Your task to perform on an android device: turn off wifi Image 0: 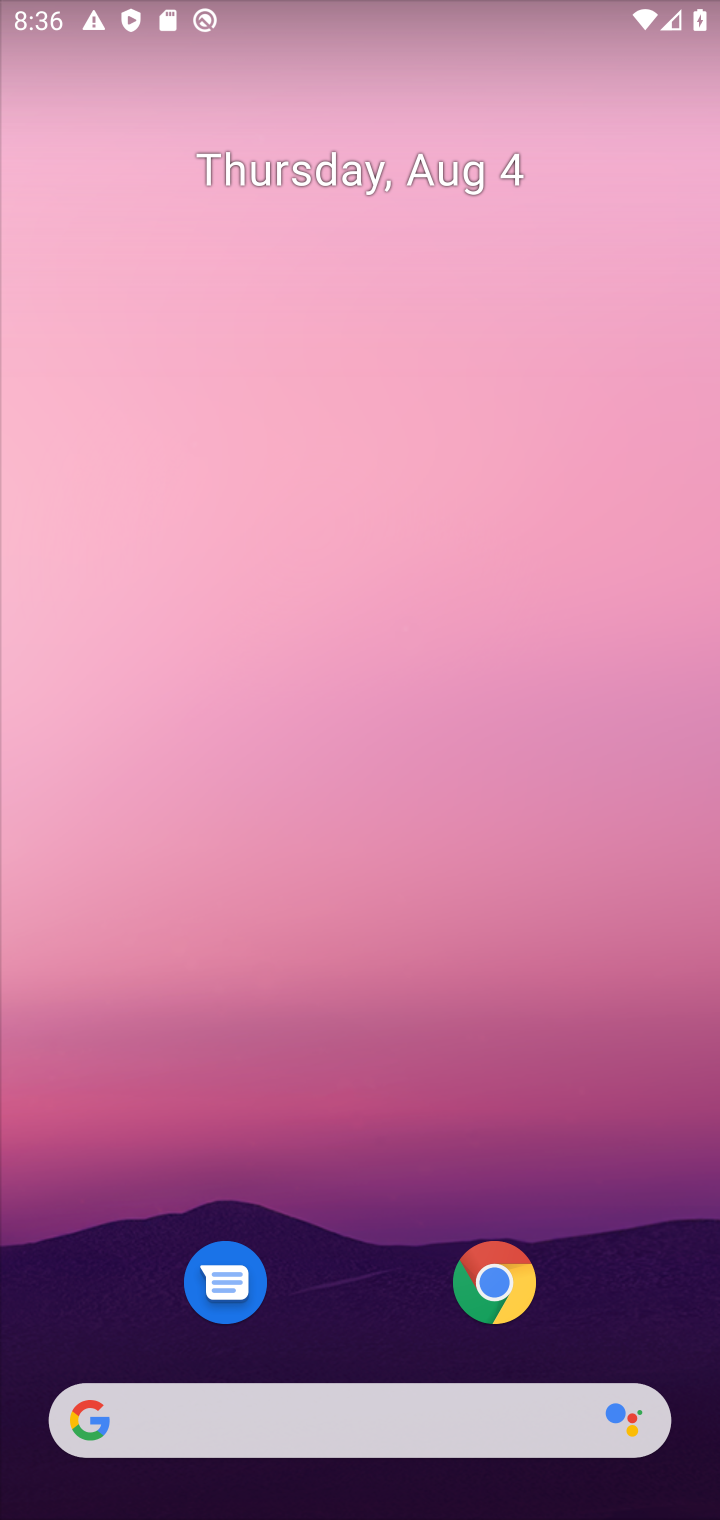
Step 0: drag from (646, 20) to (717, 1323)
Your task to perform on an android device: turn off wifi Image 1: 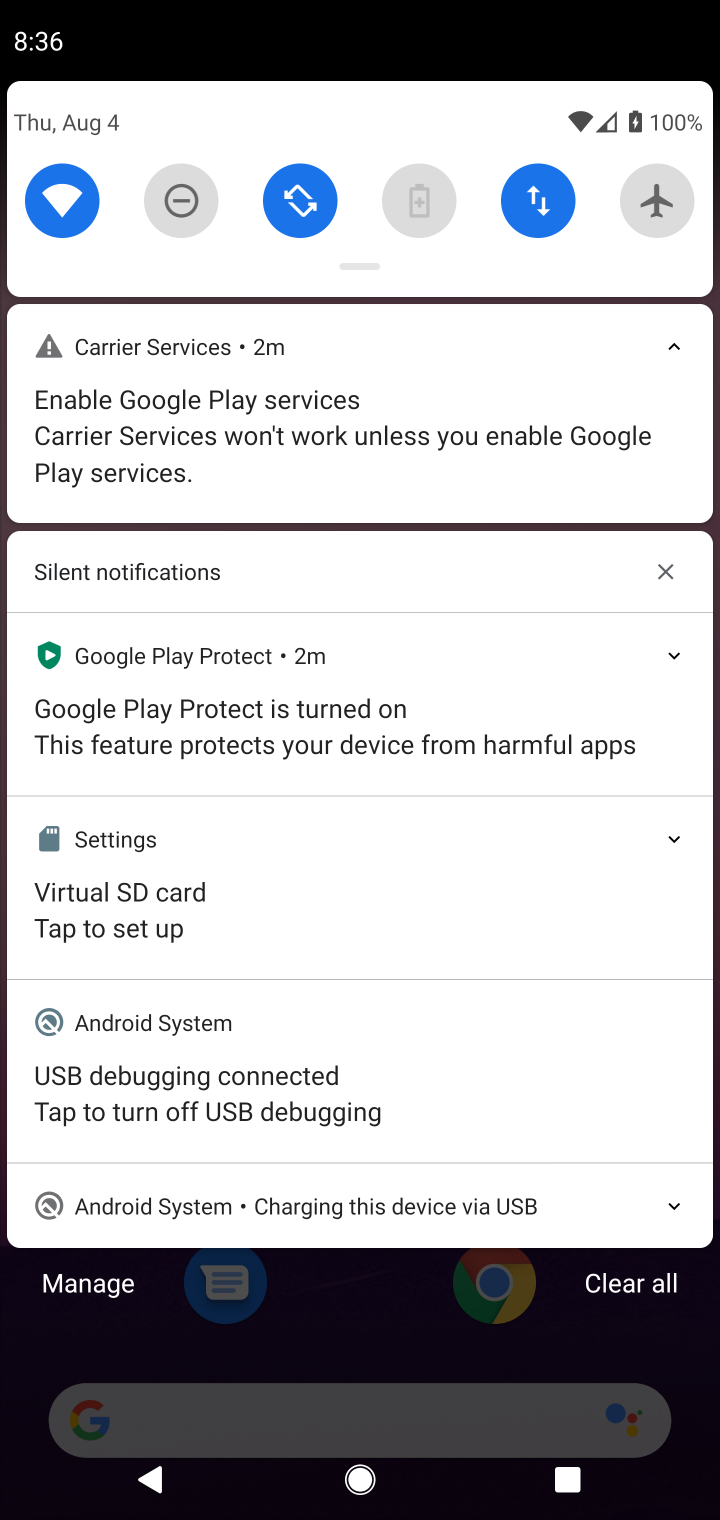
Step 1: click (49, 185)
Your task to perform on an android device: turn off wifi Image 2: 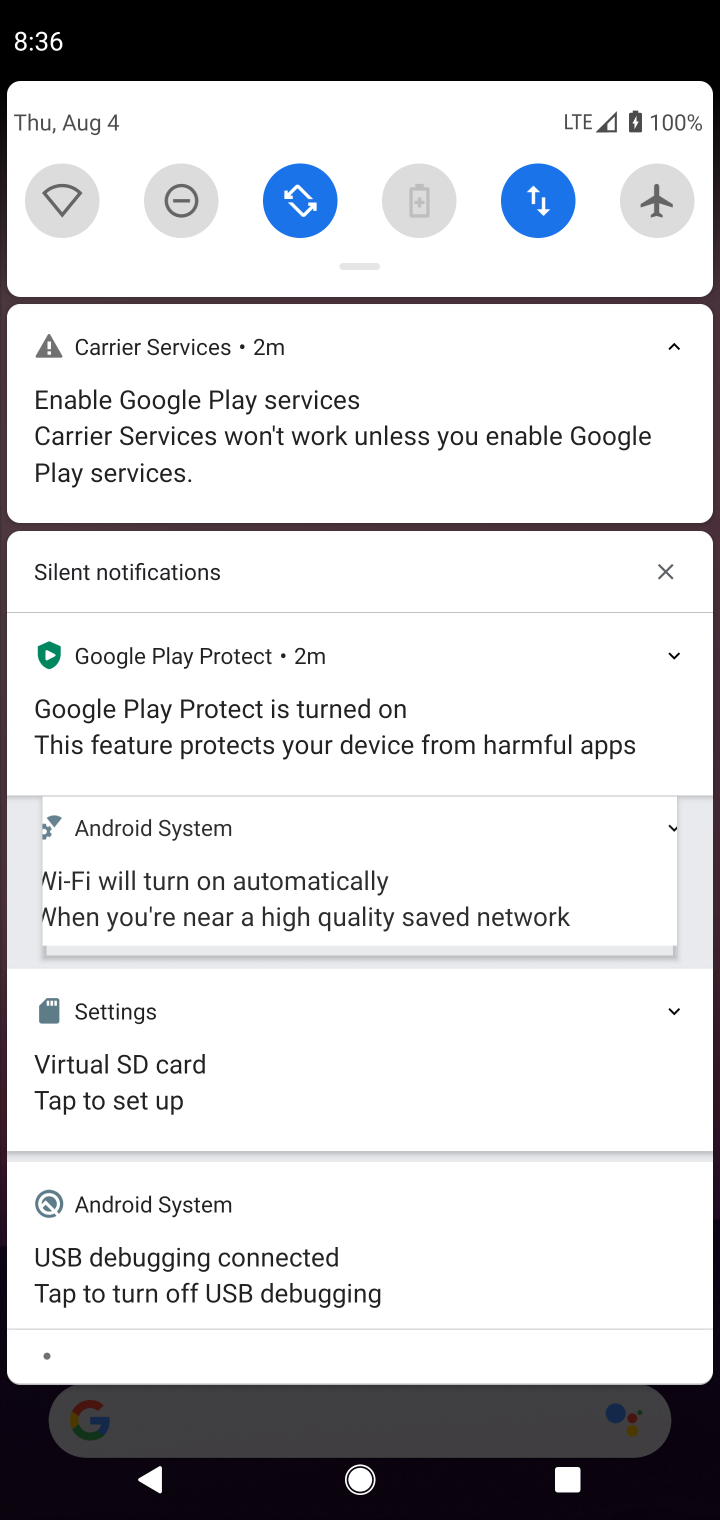
Step 2: task complete